Your task to perform on an android device: Search for Italian restaurants on Maps Image 0: 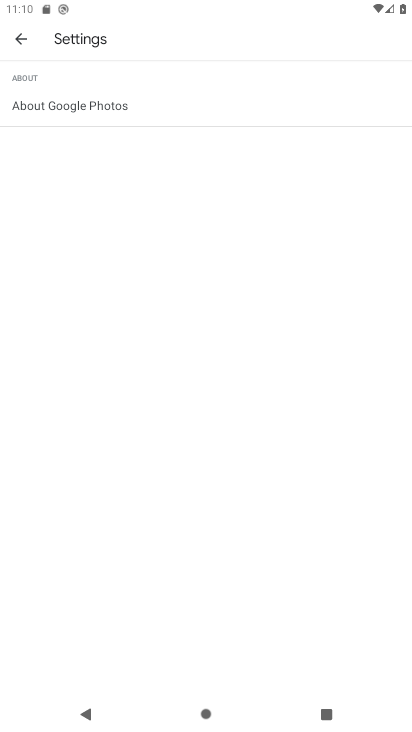
Step 0: press home button
Your task to perform on an android device: Search for Italian restaurants on Maps Image 1: 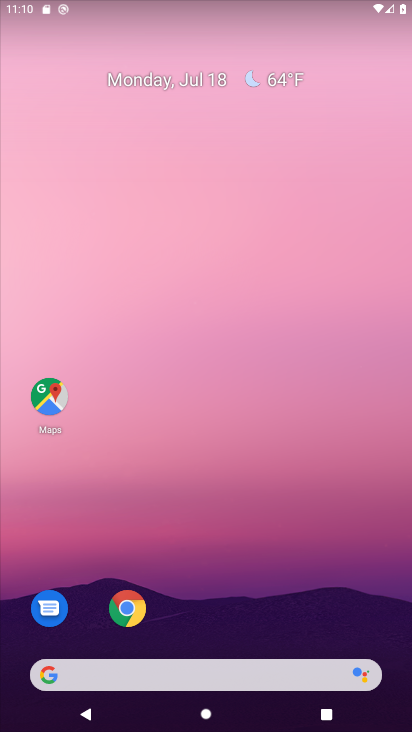
Step 1: drag from (212, 615) to (223, 159)
Your task to perform on an android device: Search for Italian restaurants on Maps Image 2: 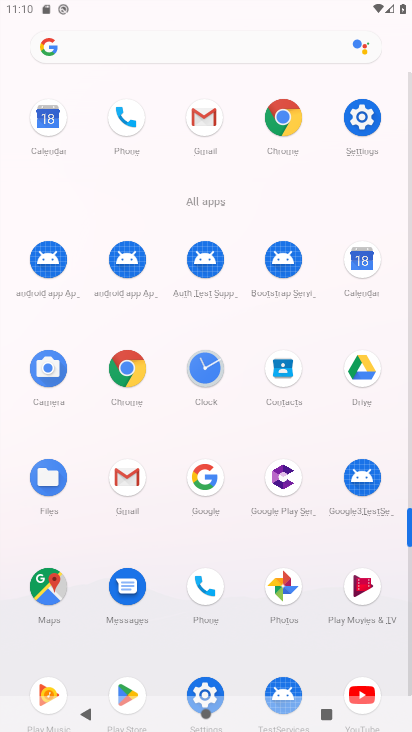
Step 2: click (39, 595)
Your task to perform on an android device: Search for Italian restaurants on Maps Image 3: 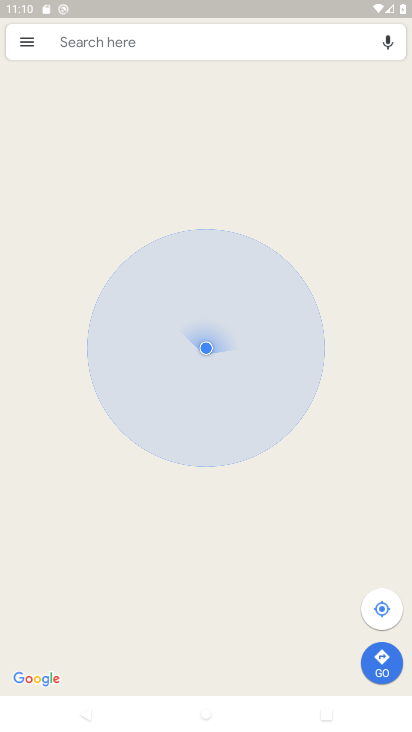
Step 3: click (156, 40)
Your task to perform on an android device: Search for Italian restaurants on Maps Image 4: 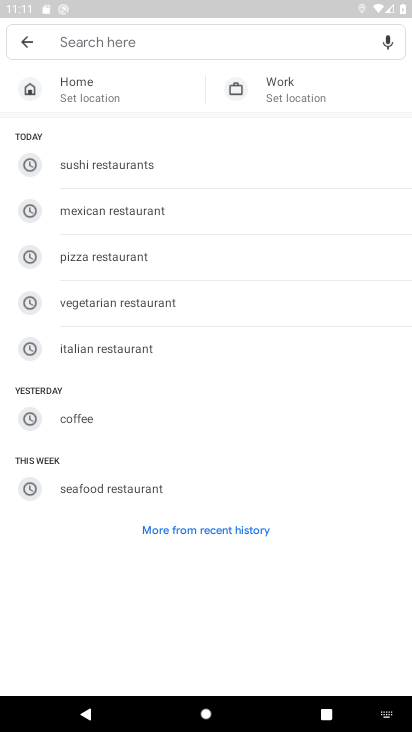
Step 4: type "Italian restaurants"
Your task to perform on an android device: Search for Italian restaurants on Maps Image 5: 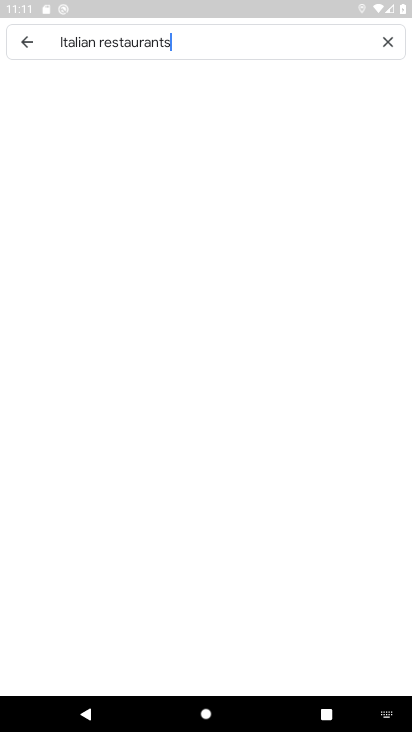
Step 5: type ""
Your task to perform on an android device: Search for Italian restaurants on Maps Image 6: 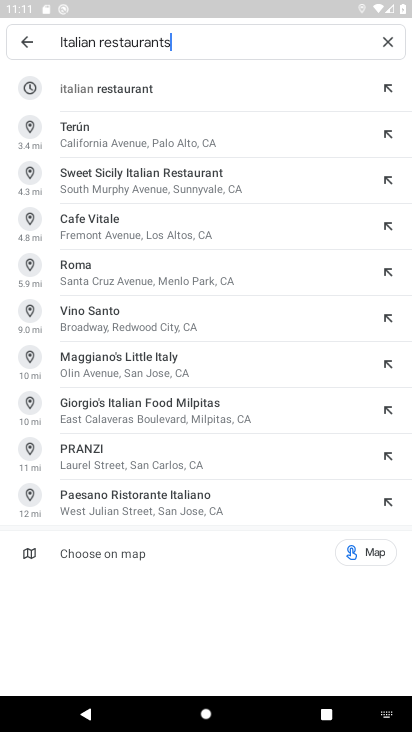
Step 6: click (160, 97)
Your task to perform on an android device: Search for Italian restaurants on Maps Image 7: 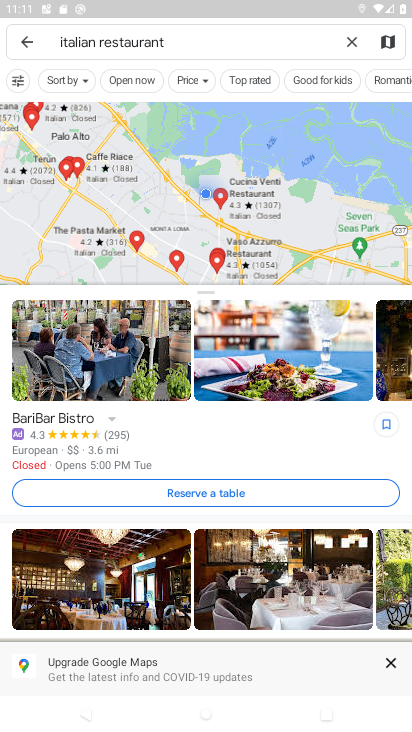
Step 7: task complete